Your task to perform on an android device: Go to calendar. Show me events next week Image 0: 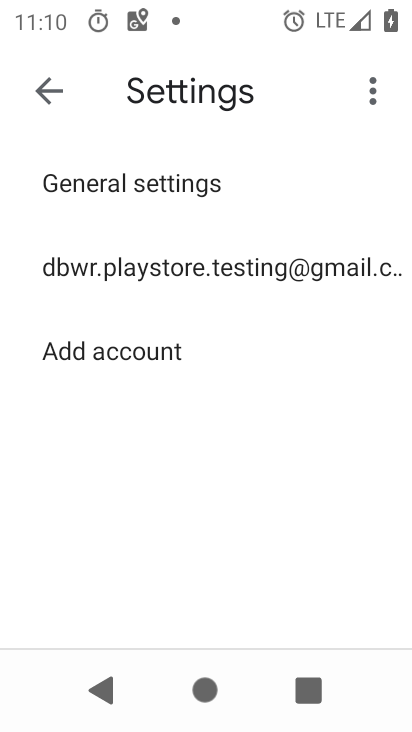
Step 0: press home button
Your task to perform on an android device: Go to calendar. Show me events next week Image 1: 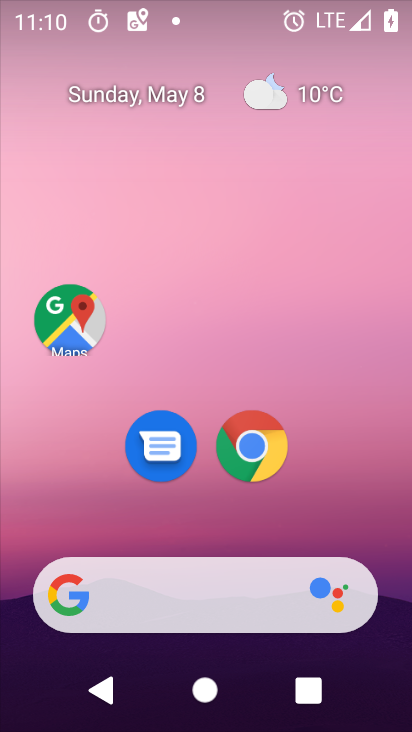
Step 1: drag from (351, 300) to (351, 2)
Your task to perform on an android device: Go to calendar. Show me events next week Image 2: 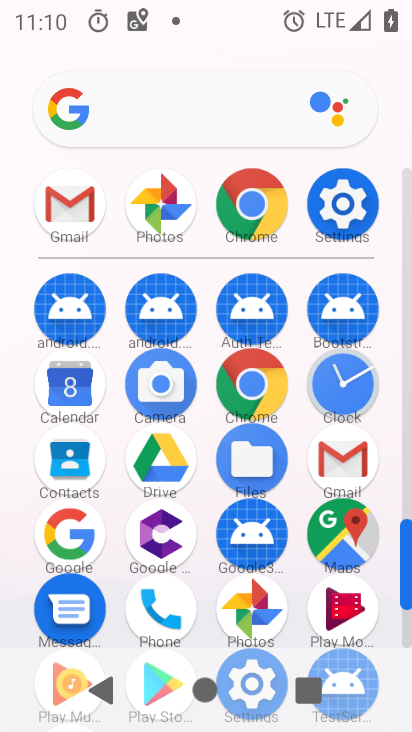
Step 2: click (71, 381)
Your task to perform on an android device: Go to calendar. Show me events next week Image 3: 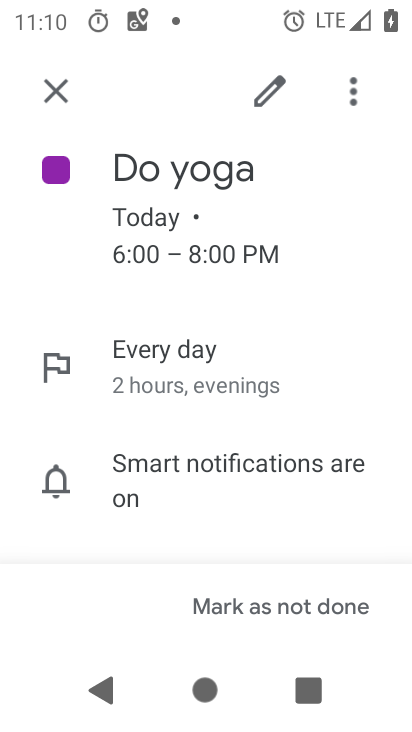
Step 3: click (45, 98)
Your task to perform on an android device: Go to calendar. Show me events next week Image 4: 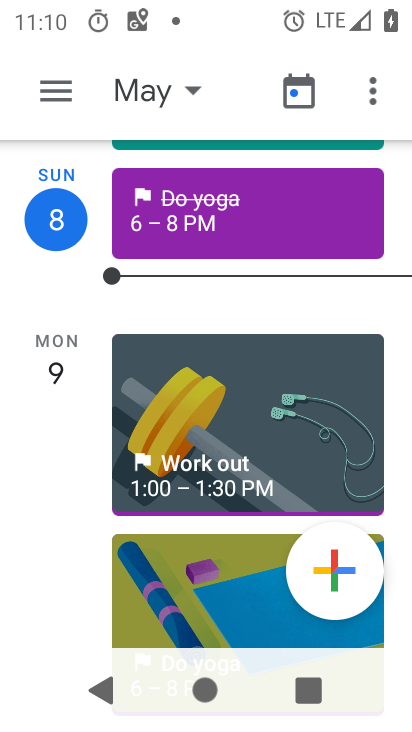
Step 4: click (54, 99)
Your task to perform on an android device: Go to calendar. Show me events next week Image 5: 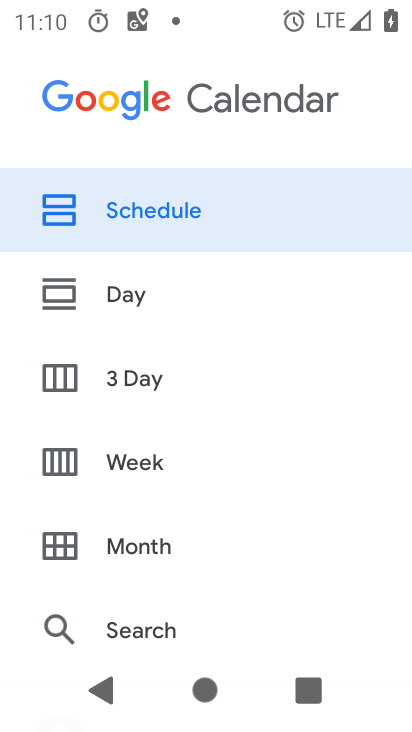
Step 5: drag from (197, 505) to (211, 133)
Your task to perform on an android device: Go to calendar. Show me events next week Image 6: 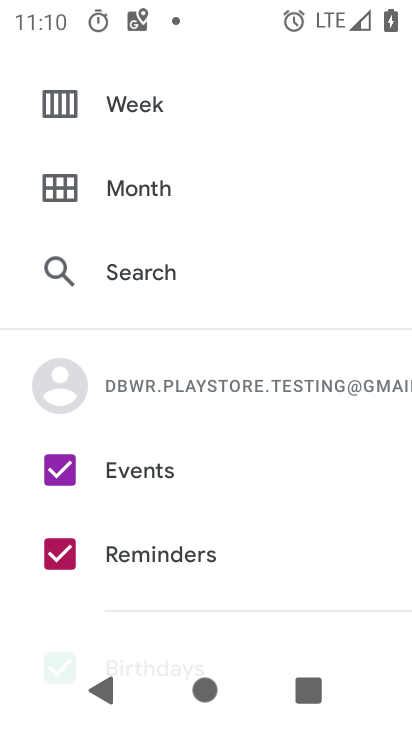
Step 6: click (62, 552)
Your task to perform on an android device: Go to calendar. Show me events next week Image 7: 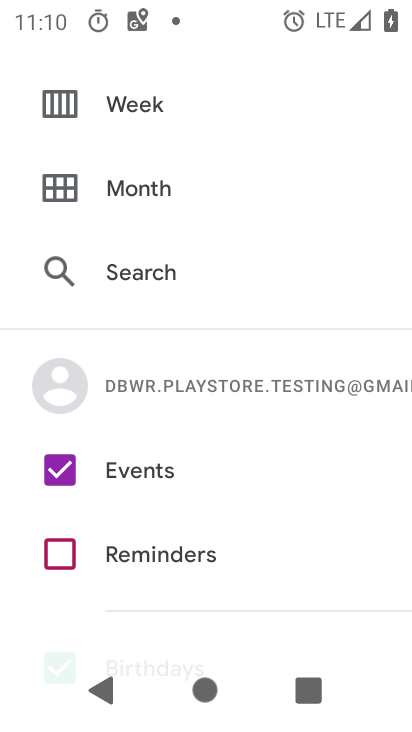
Step 7: drag from (159, 551) to (165, 314)
Your task to perform on an android device: Go to calendar. Show me events next week Image 8: 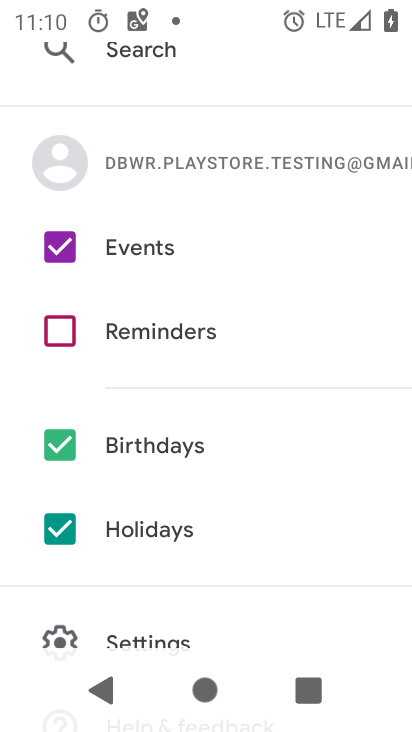
Step 8: click (57, 454)
Your task to perform on an android device: Go to calendar. Show me events next week Image 9: 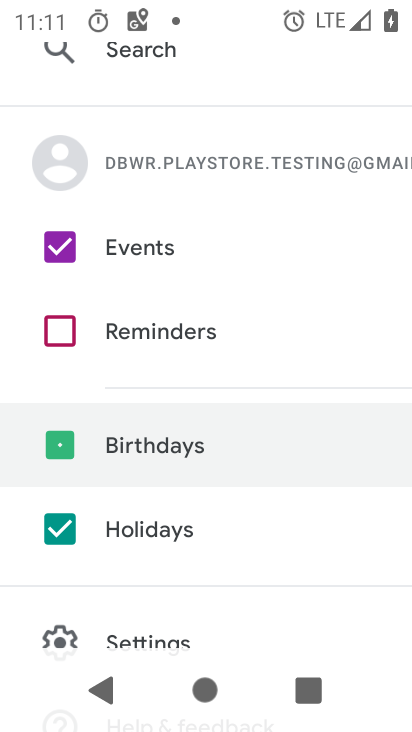
Step 9: click (56, 517)
Your task to perform on an android device: Go to calendar. Show me events next week Image 10: 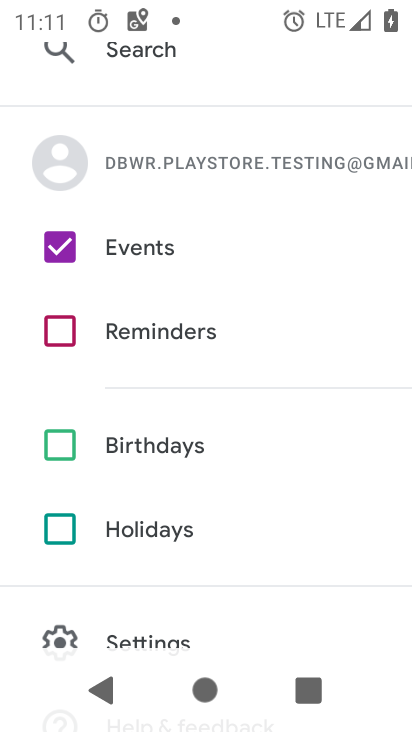
Step 10: drag from (134, 505) to (156, 629)
Your task to perform on an android device: Go to calendar. Show me events next week Image 11: 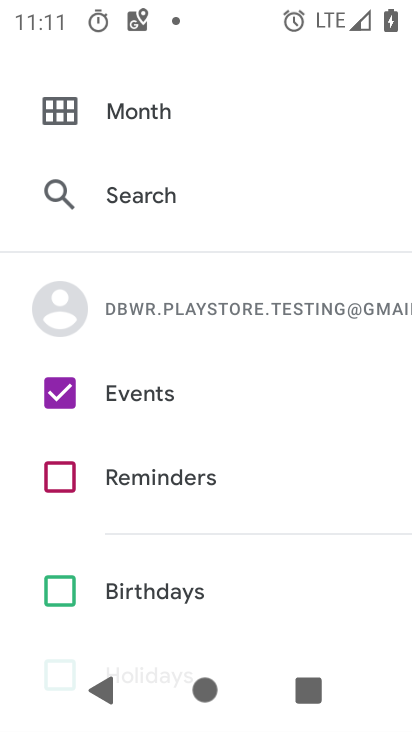
Step 11: drag from (95, 252) to (109, 525)
Your task to perform on an android device: Go to calendar. Show me events next week Image 12: 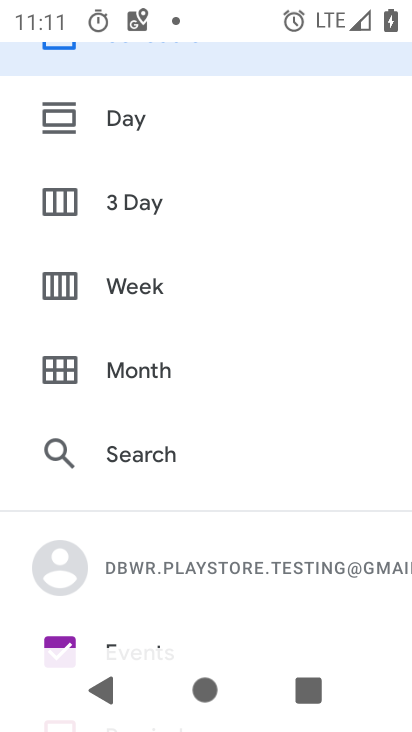
Step 12: click (60, 287)
Your task to perform on an android device: Go to calendar. Show me events next week Image 13: 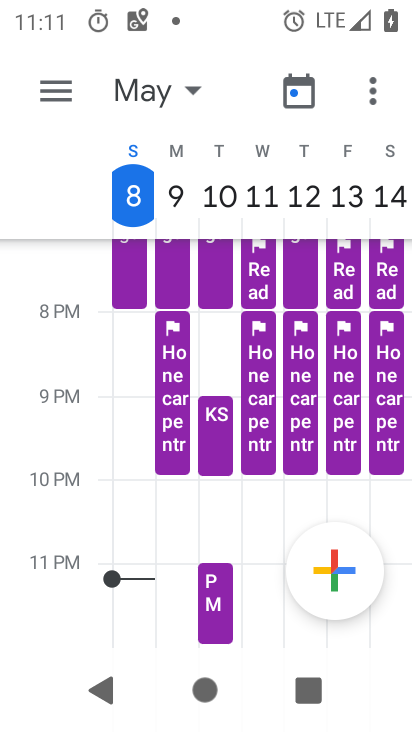
Step 13: task complete